Your task to perform on an android device: uninstall "DoorDash - Dasher" Image 0: 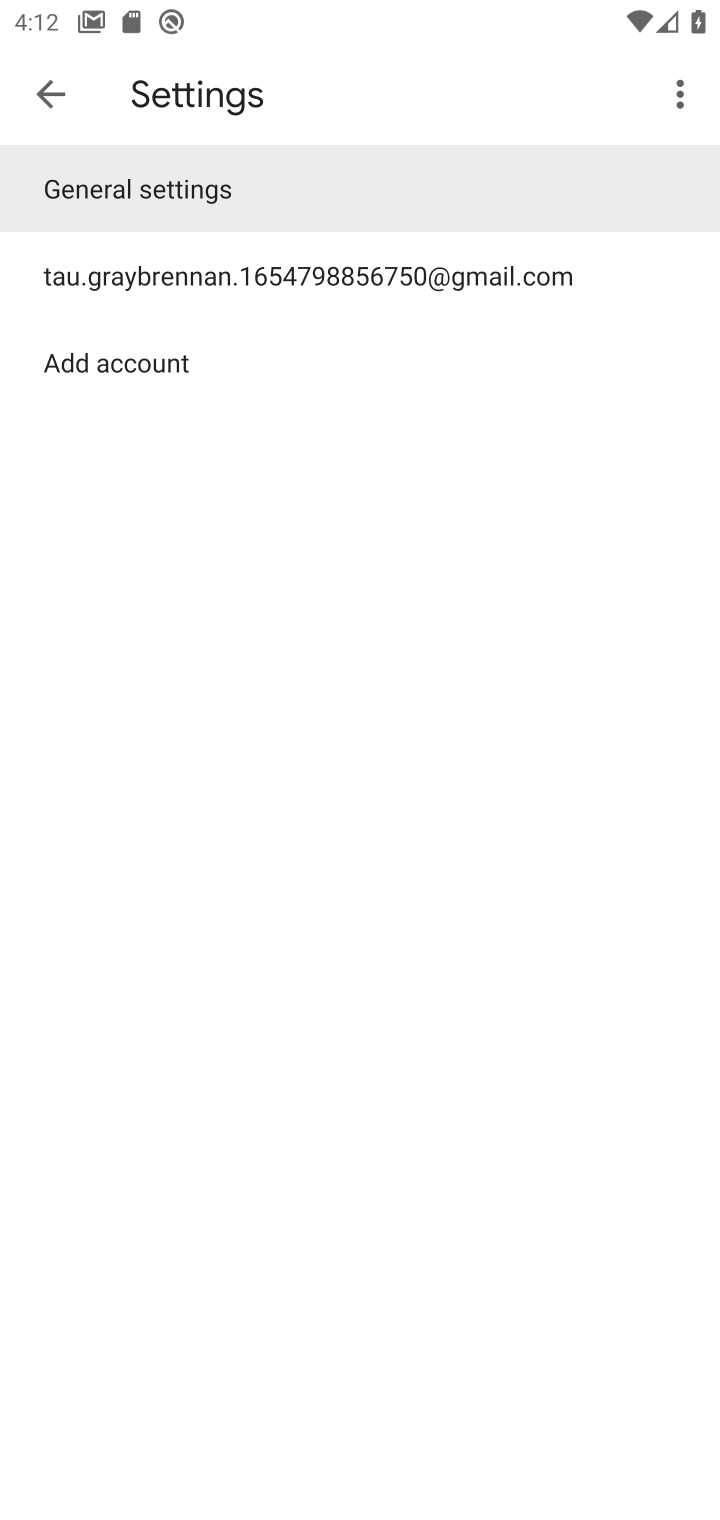
Step 0: press home button
Your task to perform on an android device: uninstall "DoorDash - Dasher" Image 1: 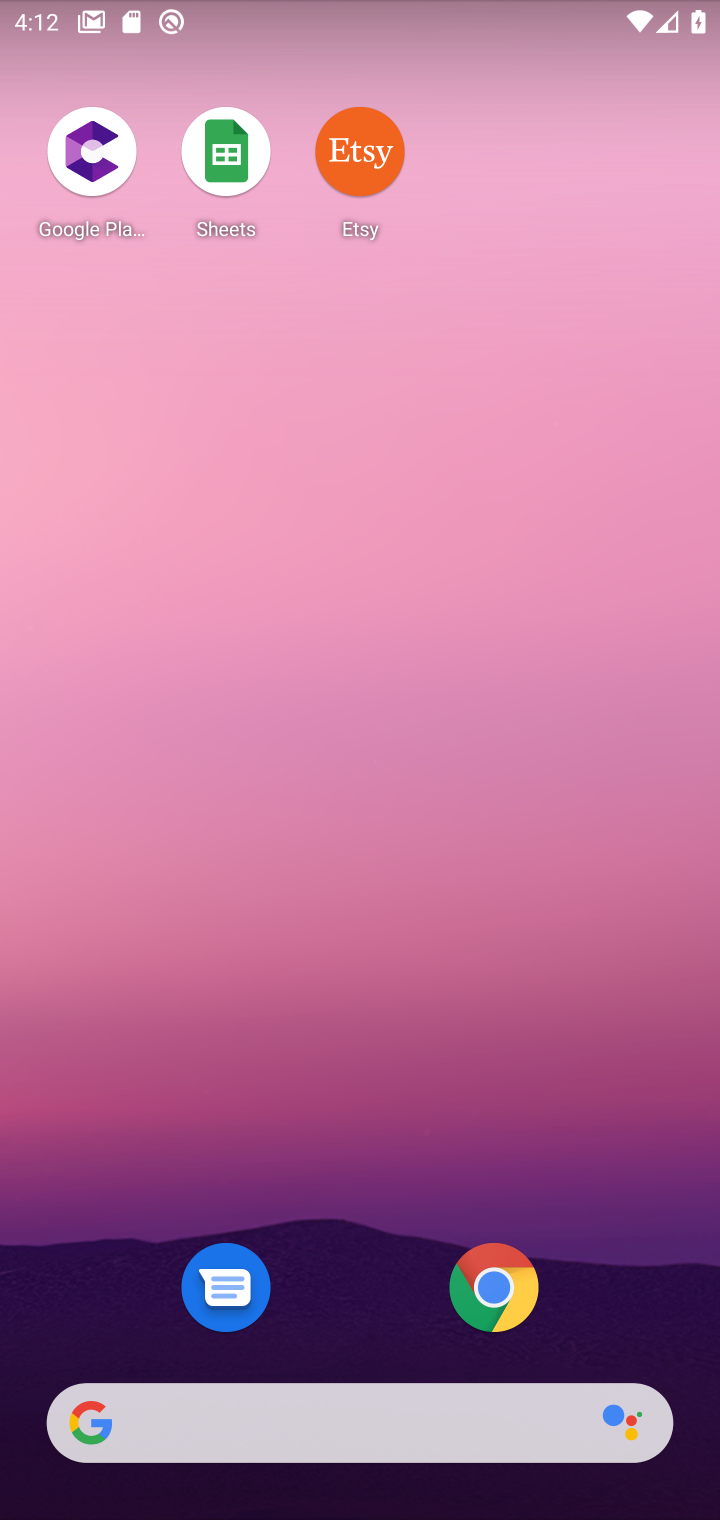
Step 1: drag from (377, 1429) to (461, 117)
Your task to perform on an android device: uninstall "DoorDash - Dasher" Image 2: 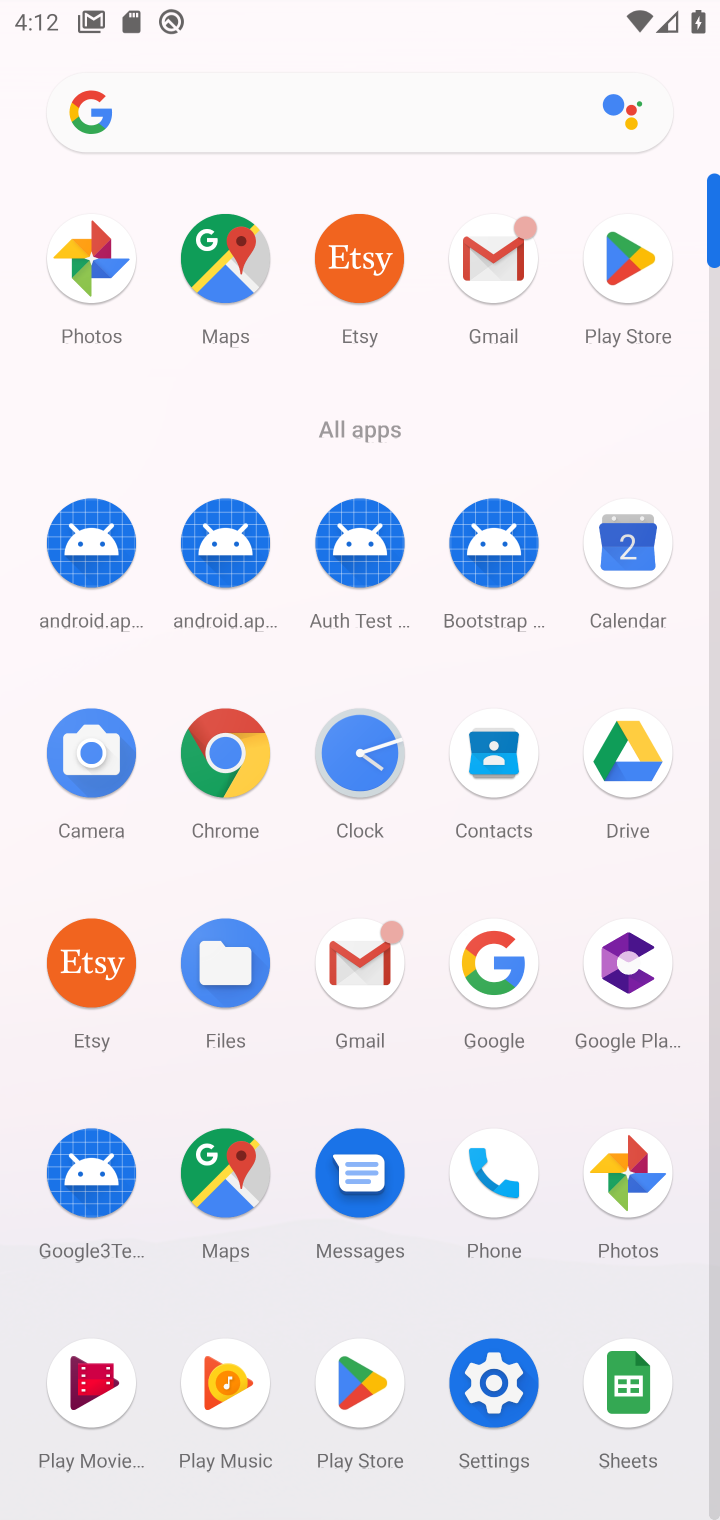
Step 2: click (629, 267)
Your task to perform on an android device: uninstall "DoorDash - Dasher" Image 3: 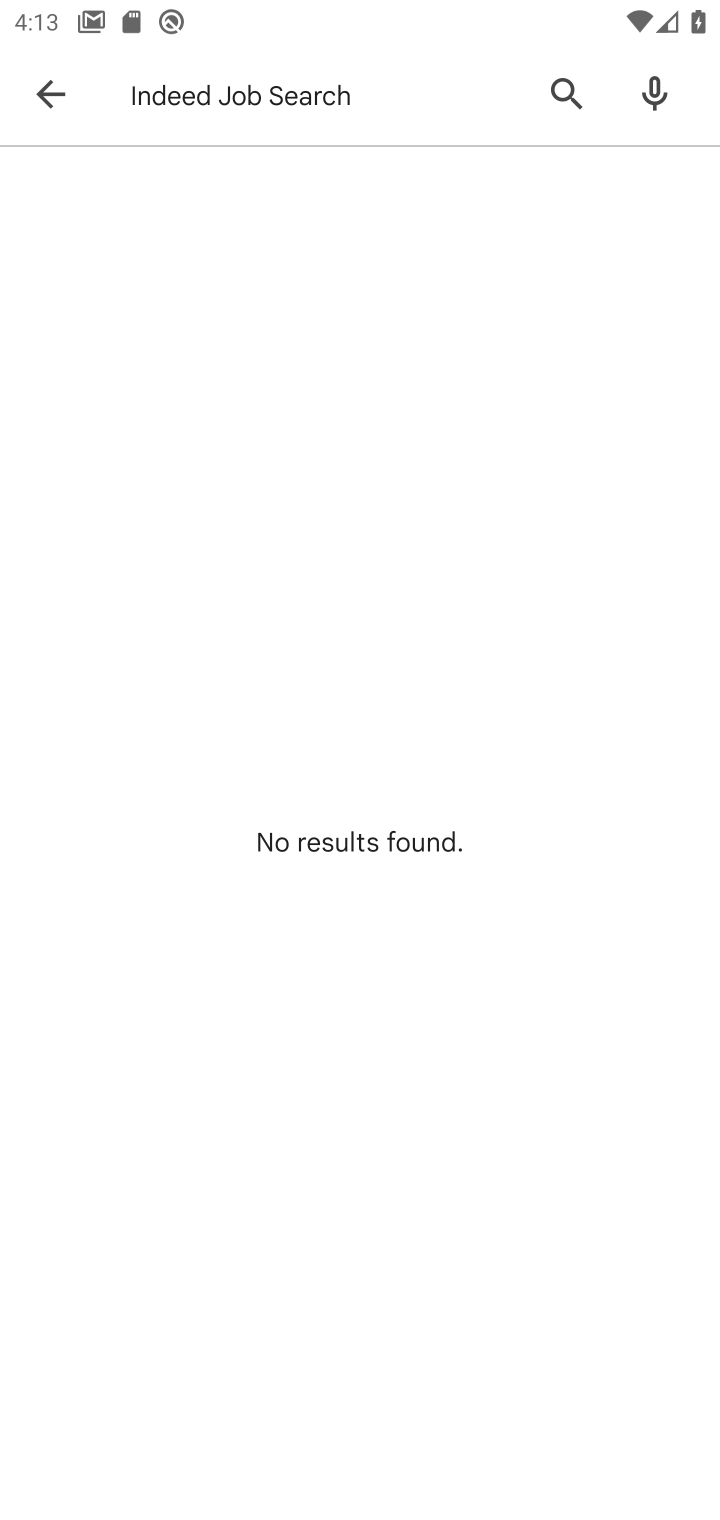
Step 3: click (566, 100)
Your task to perform on an android device: uninstall "DoorDash - Dasher" Image 4: 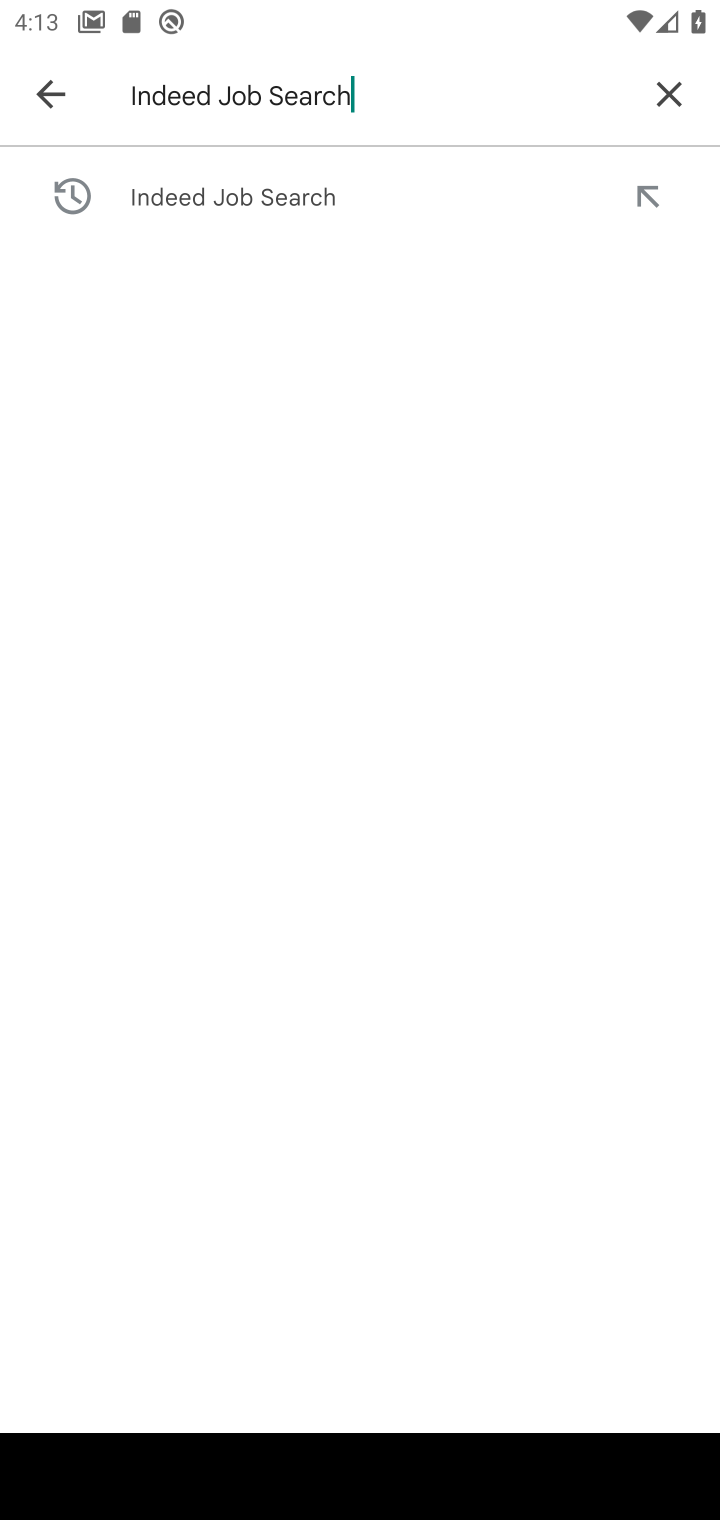
Step 4: click (671, 81)
Your task to perform on an android device: uninstall "DoorDash - Dasher" Image 5: 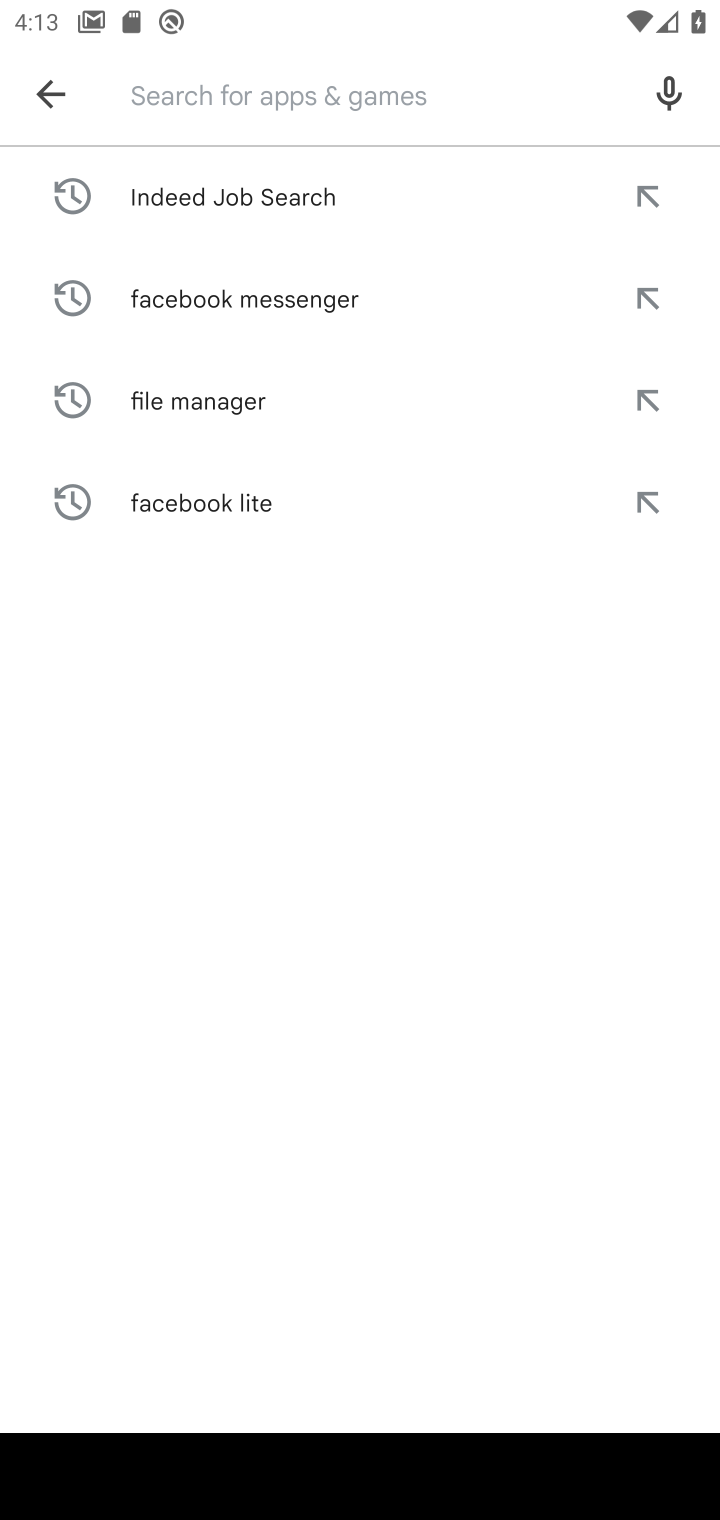
Step 5: type "DoorDash - Dasher"
Your task to perform on an android device: uninstall "DoorDash - Dasher" Image 6: 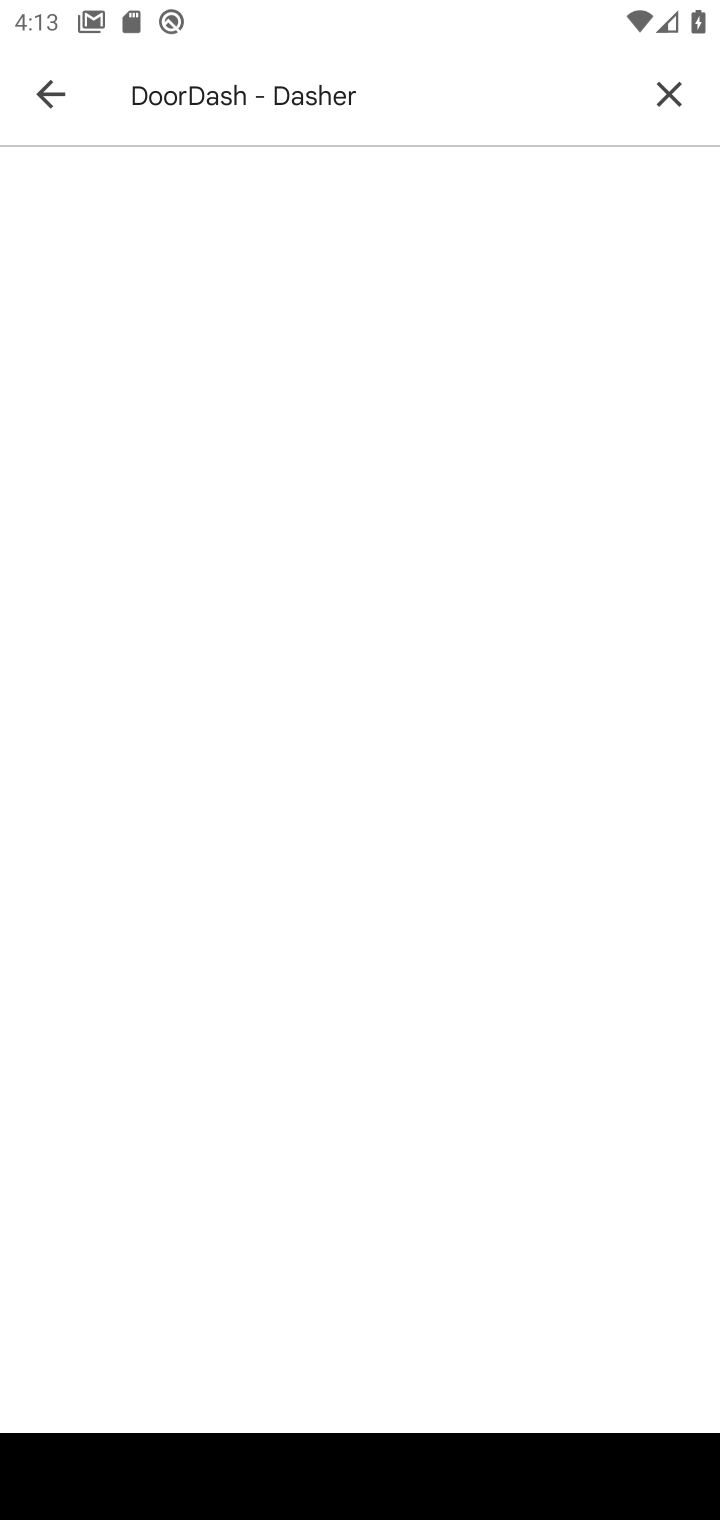
Step 6: press enter
Your task to perform on an android device: uninstall "DoorDash - Dasher" Image 7: 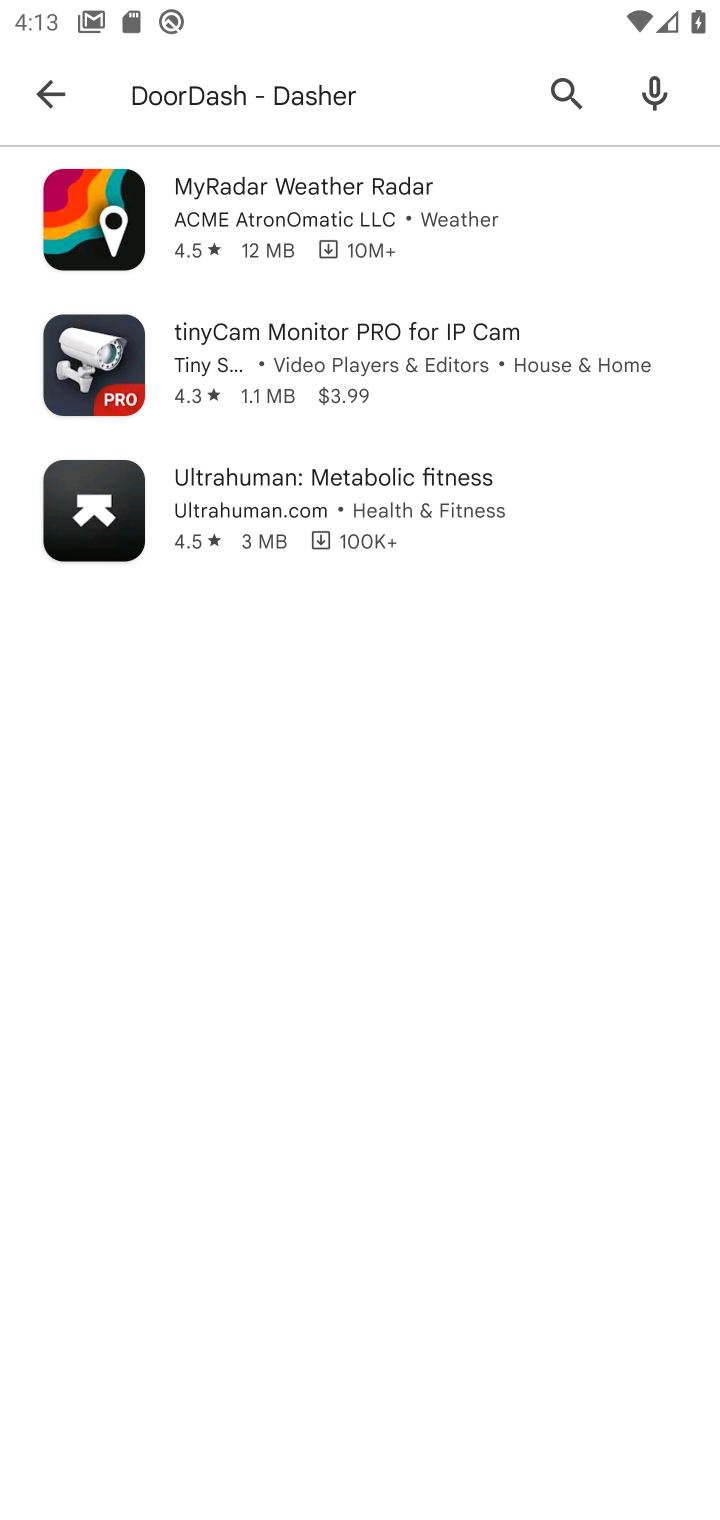
Step 7: click (436, 85)
Your task to perform on an android device: uninstall "DoorDash - Dasher" Image 8: 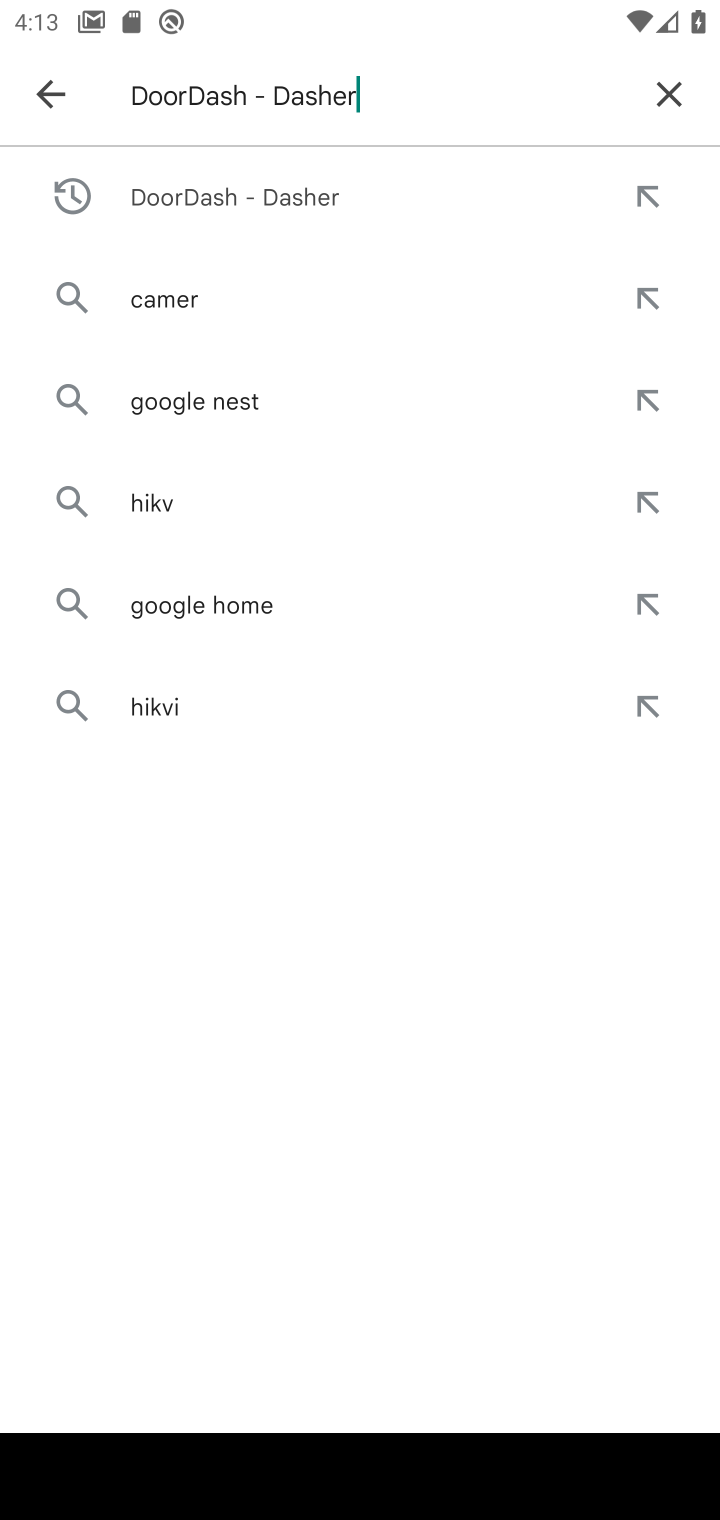
Step 8: click (78, 207)
Your task to perform on an android device: uninstall "DoorDash - Dasher" Image 9: 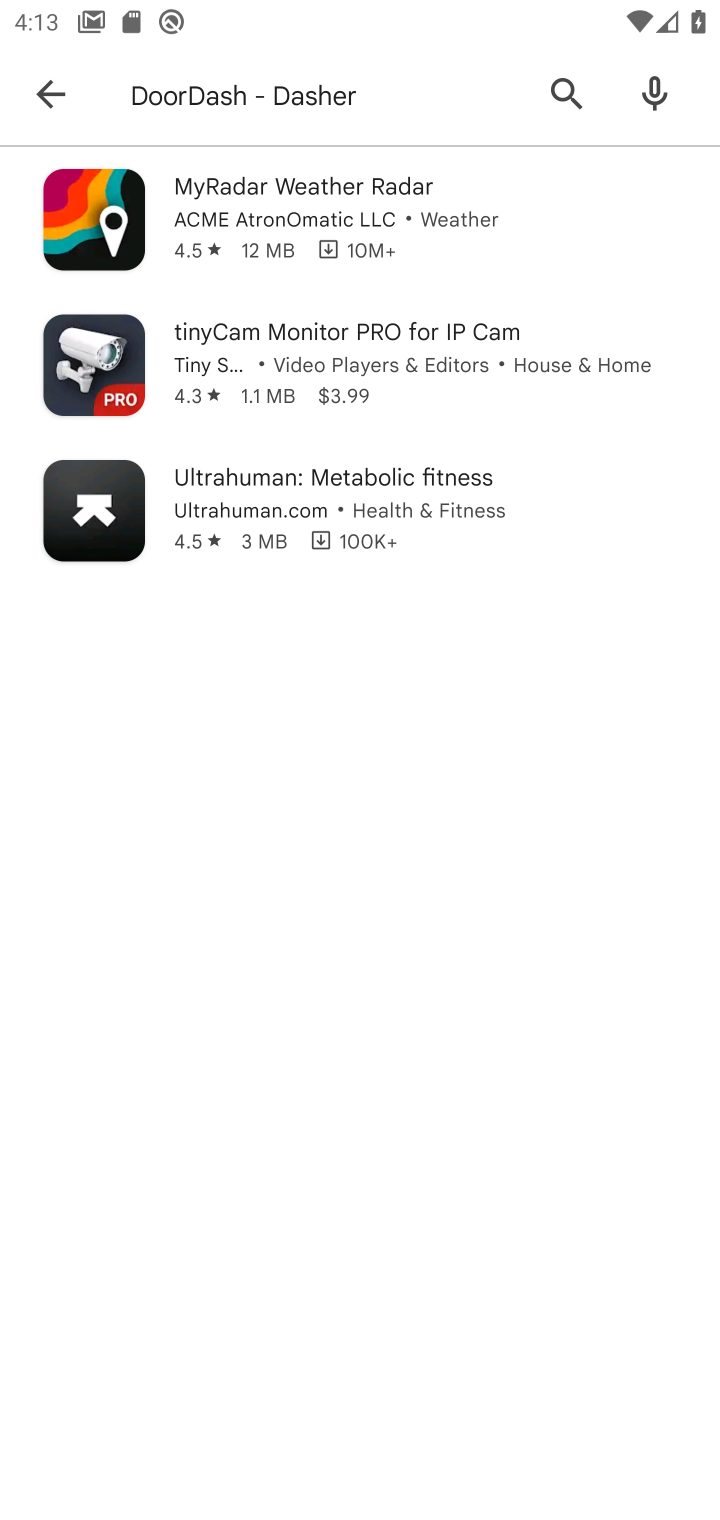
Step 9: task complete